Your task to perform on an android device: Open the calendar app, open the side menu, and click the "Day" option Image 0: 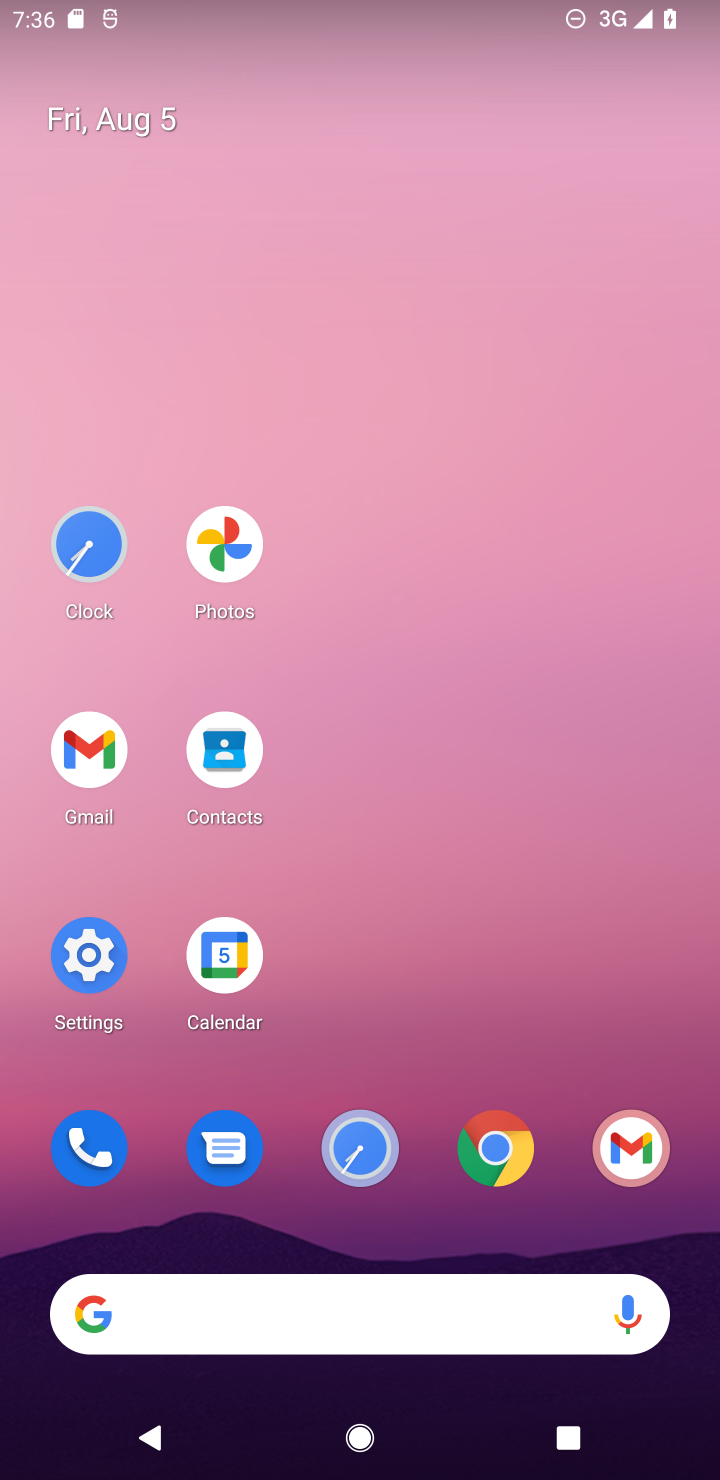
Step 0: click (232, 954)
Your task to perform on an android device: Open the calendar app, open the side menu, and click the "Day" option Image 1: 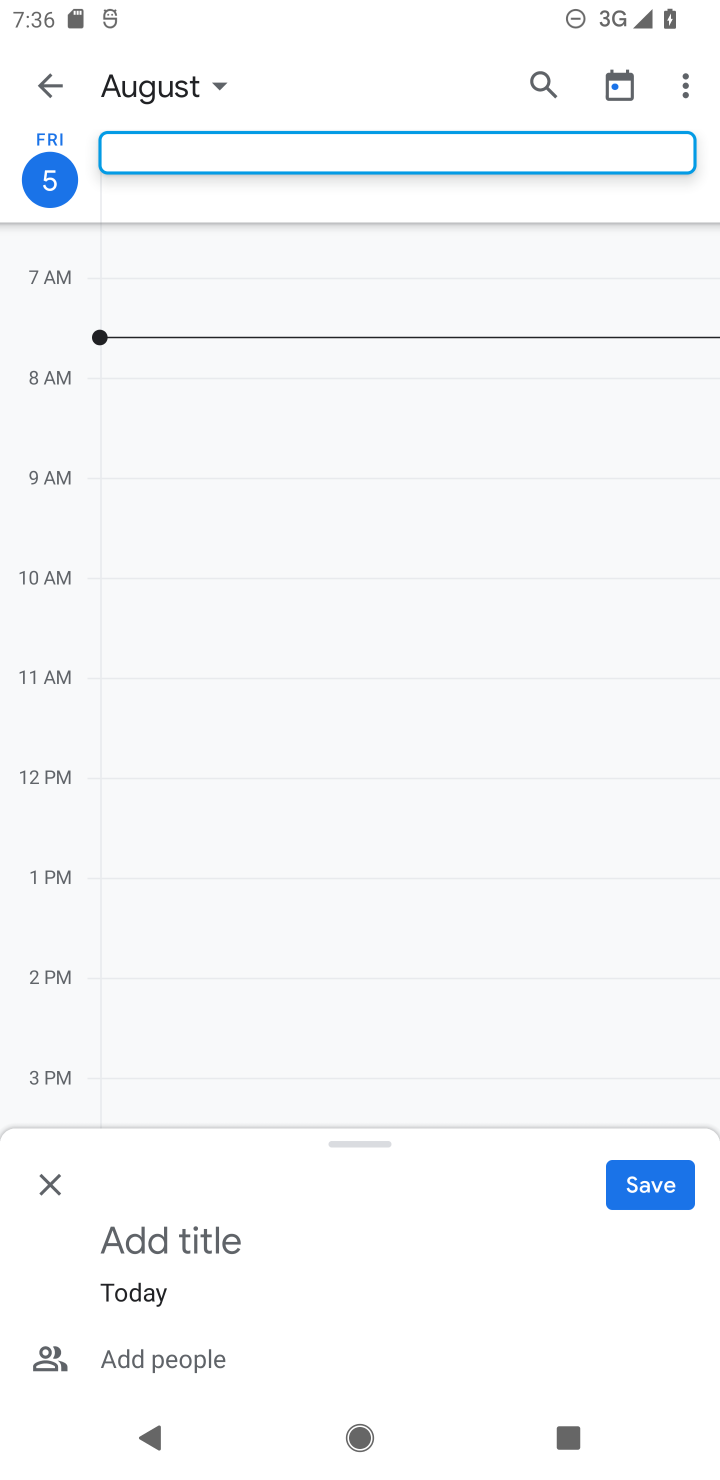
Step 1: click (44, 79)
Your task to perform on an android device: Open the calendar app, open the side menu, and click the "Day" option Image 2: 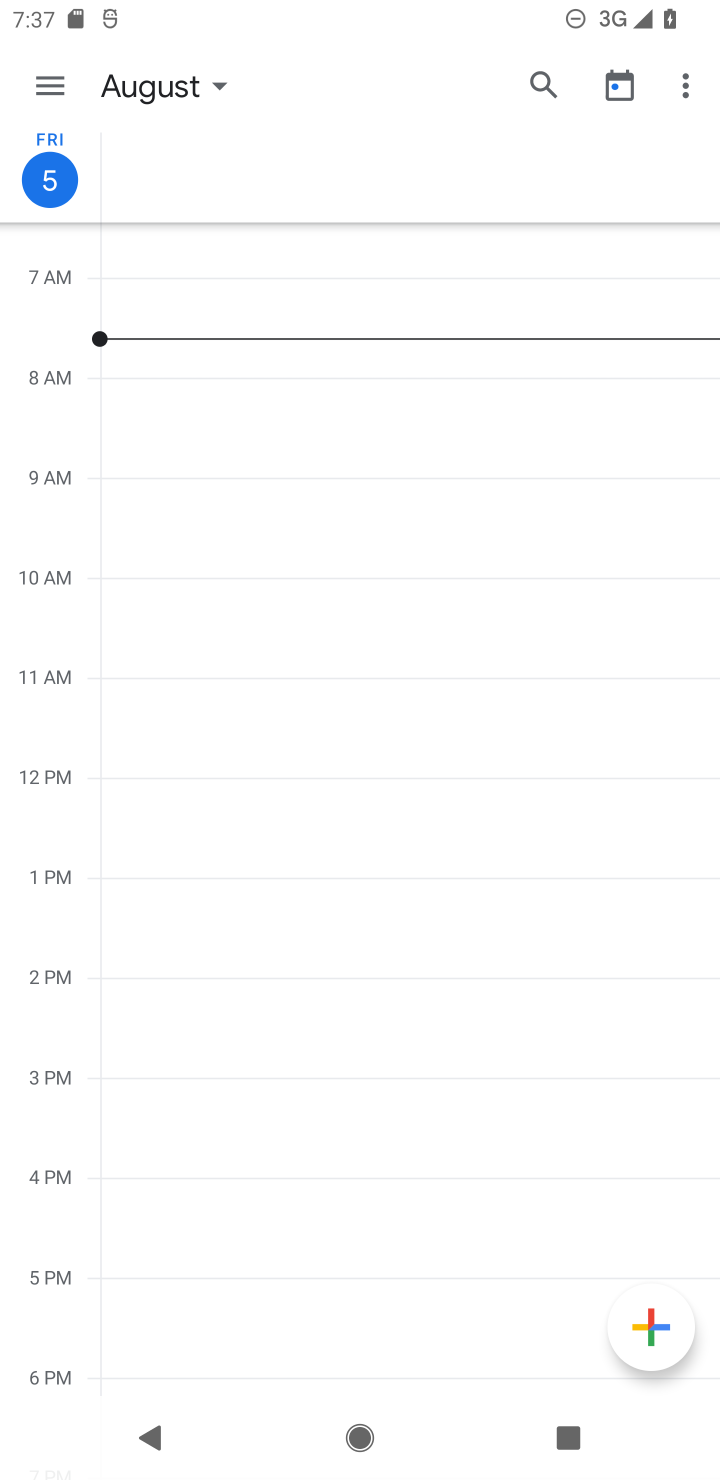
Step 2: click (52, 89)
Your task to perform on an android device: Open the calendar app, open the side menu, and click the "Day" option Image 3: 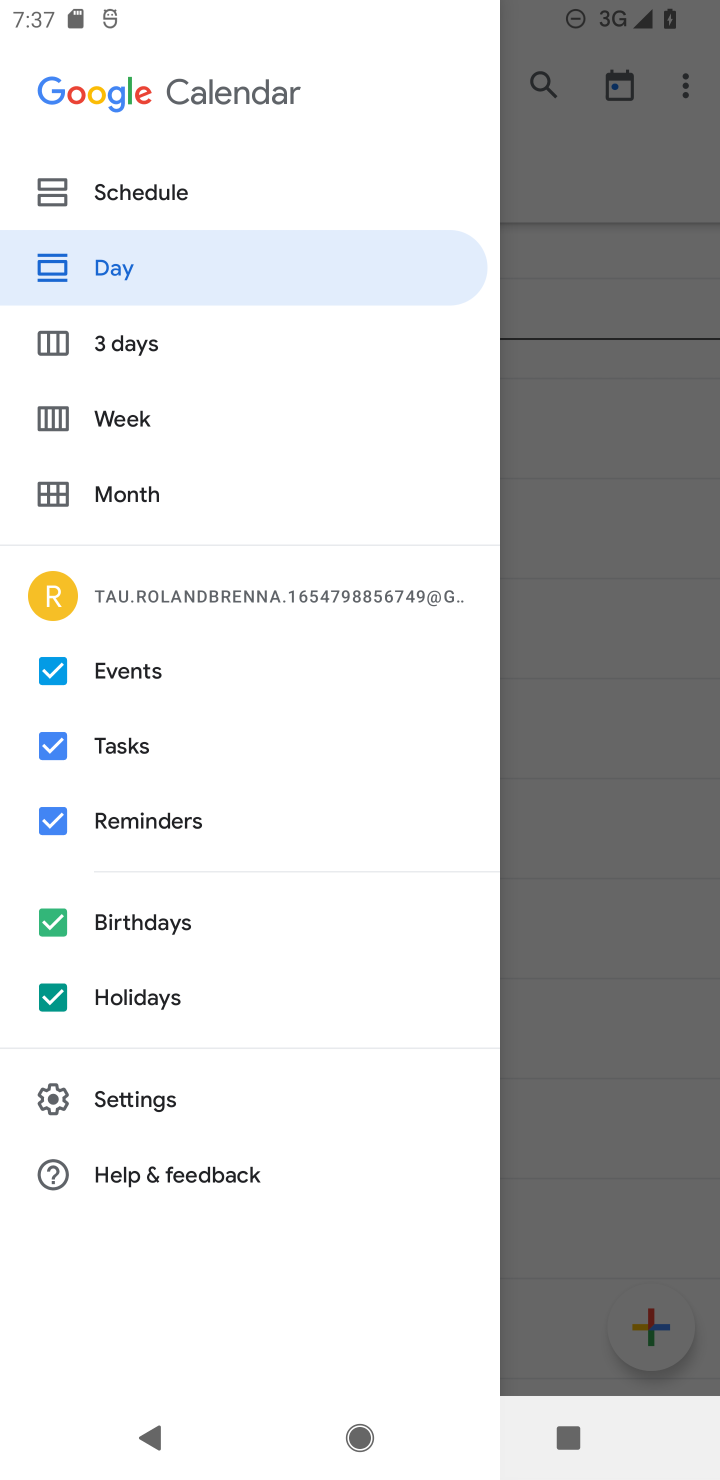
Step 3: click (111, 265)
Your task to perform on an android device: Open the calendar app, open the side menu, and click the "Day" option Image 4: 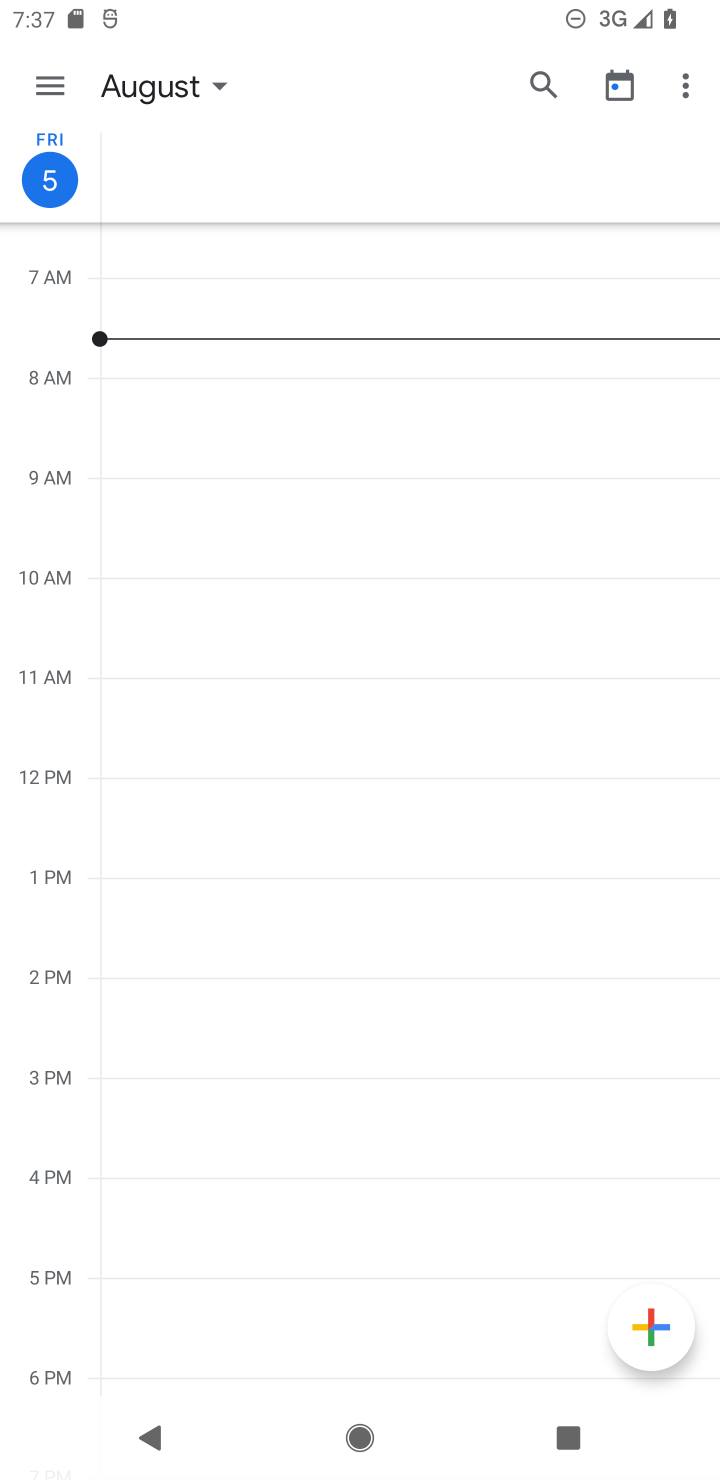
Step 4: task complete